Your task to perform on an android device: What's on my calendar tomorrow? Image 0: 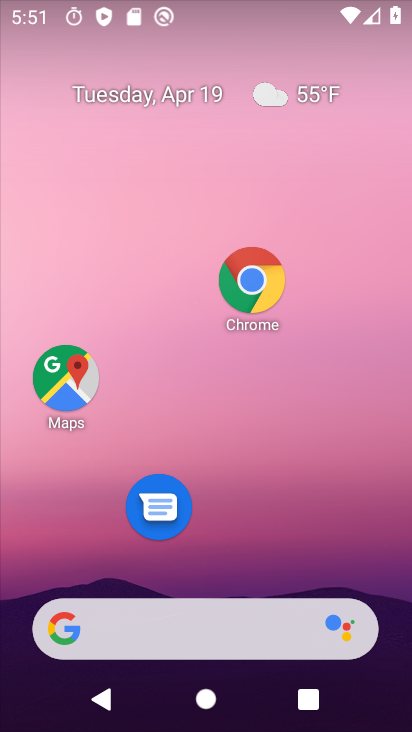
Step 0: drag from (223, 589) to (214, 226)
Your task to perform on an android device: What's on my calendar tomorrow? Image 1: 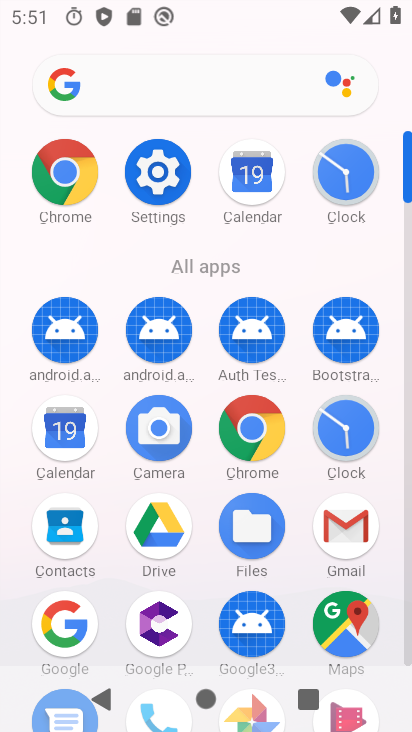
Step 1: click (257, 181)
Your task to perform on an android device: What's on my calendar tomorrow? Image 2: 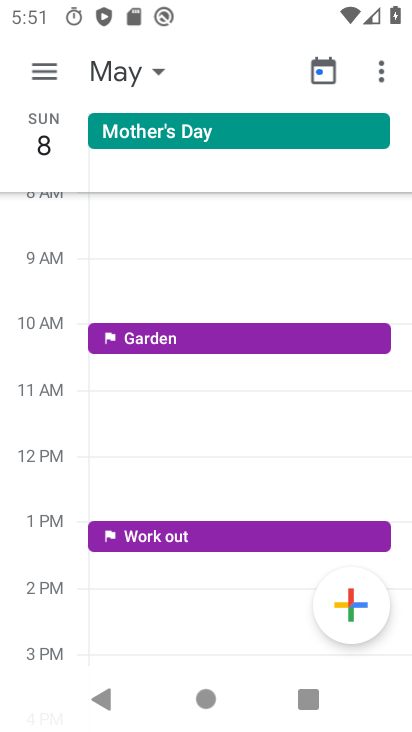
Step 2: click (125, 67)
Your task to perform on an android device: What's on my calendar tomorrow? Image 3: 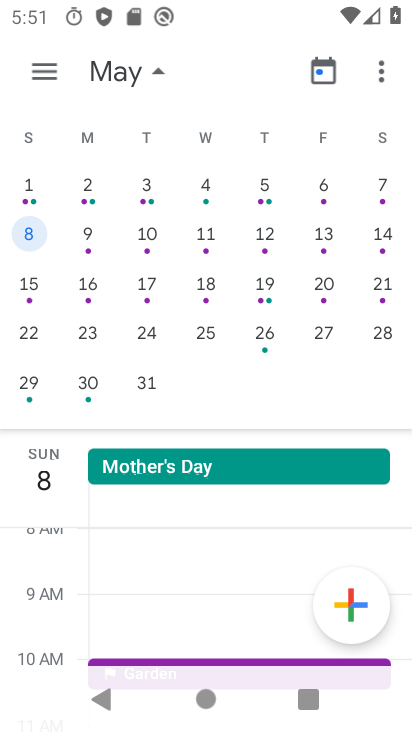
Step 3: drag from (125, 255) to (406, 279)
Your task to perform on an android device: What's on my calendar tomorrow? Image 4: 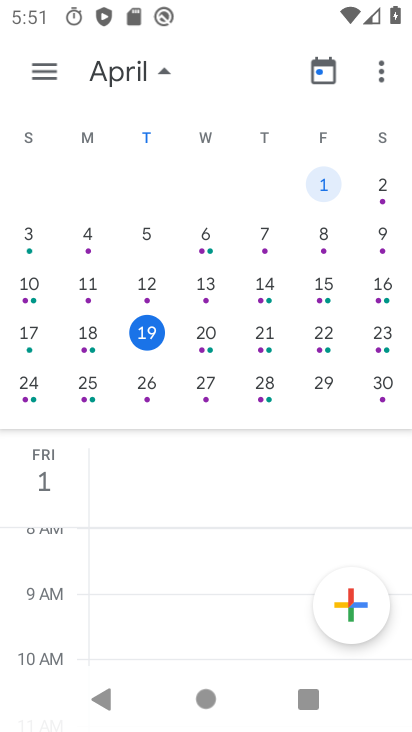
Step 4: drag from (100, 262) to (364, 287)
Your task to perform on an android device: What's on my calendar tomorrow? Image 5: 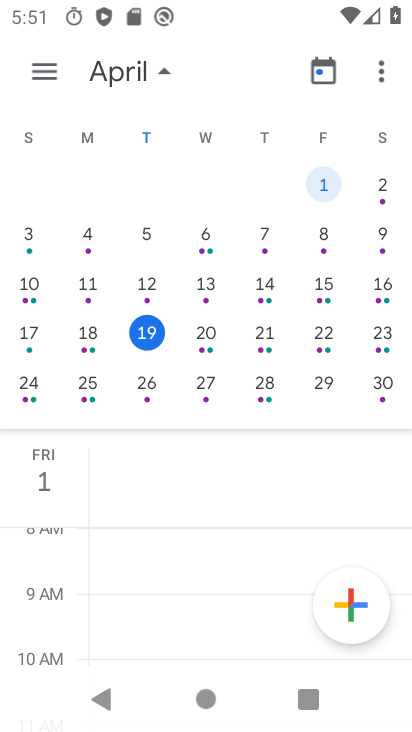
Step 5: drag from (113, 365) to (1, 341)
Your task to perform on an android device: What's on my calendar tomorrow? Image 6: 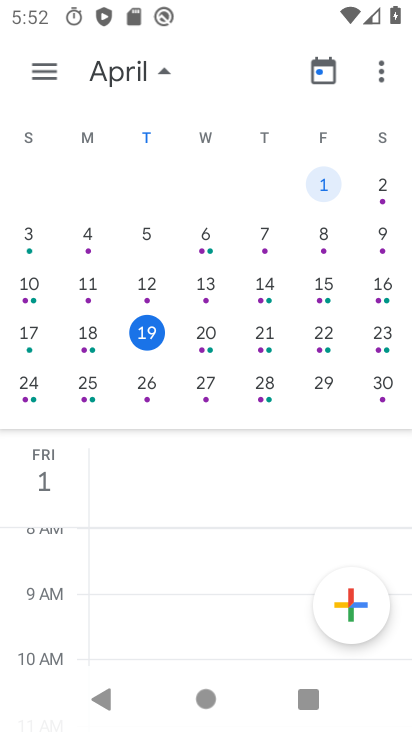
Step 6: click (202, 327)
Your task to perform on an android device: What's on my calendar tomorrow? Image 7: 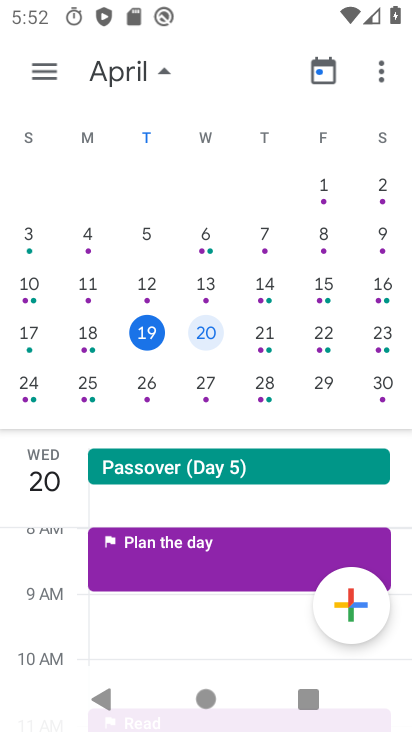
Step 7: task complete